Your task to perform on an android device: star an email in the gmail app Image 0: 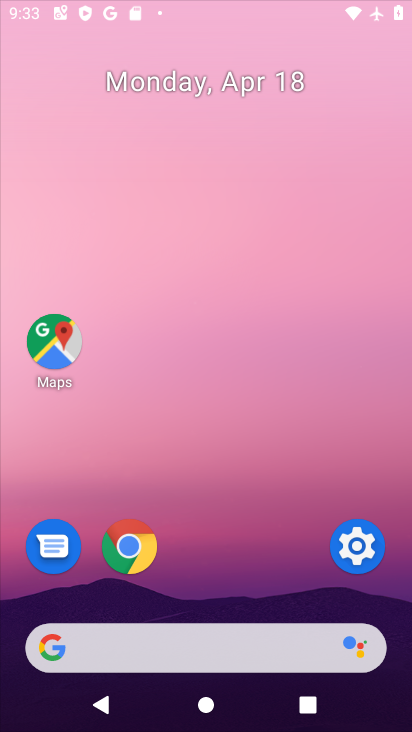
Step 0: click (359, 550)
Your task to perform on an android device: star an email in the gmail app Image 1: 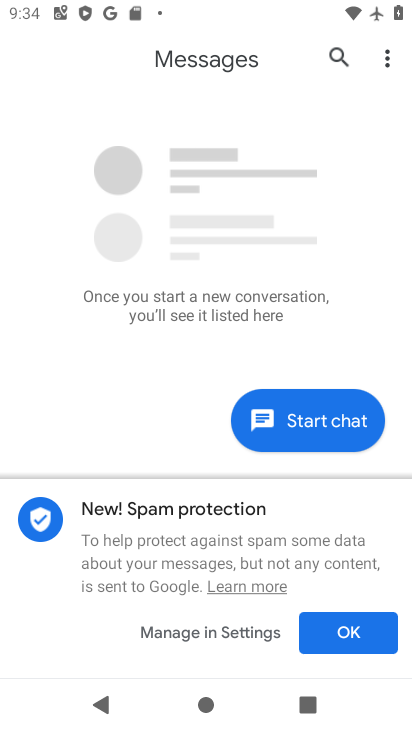
Step 1: press home button
Your task to perform on an android device: star an email in the gmail app Image 2: 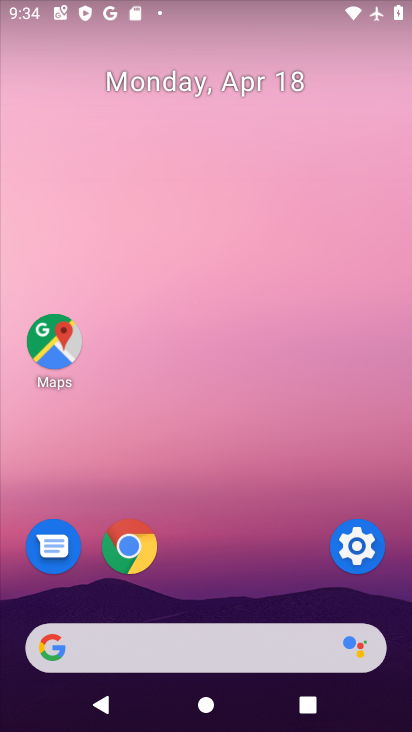
Step 2: drag from (269, 522) to (243, 91)
Your task to perform on an android device: star an email in the gmail app Image 3: 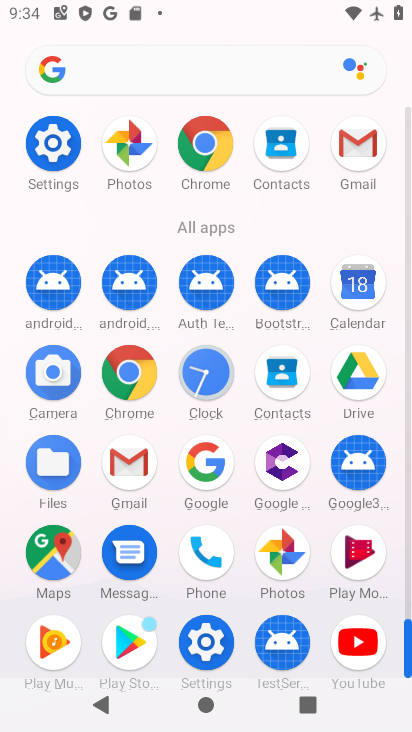
Step 3: click (351, 147)
Your task to perform on an android device: star an email in the gmail app Image 4: 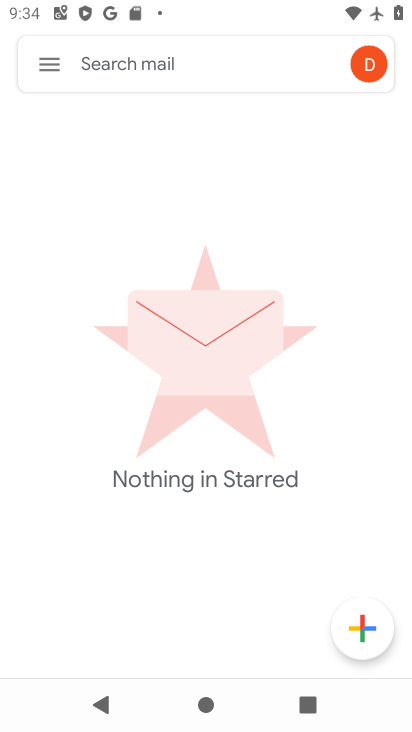
Step 4: click (48, 68)
Your task to perform on an android device: star an email in the gmail app Image 5: 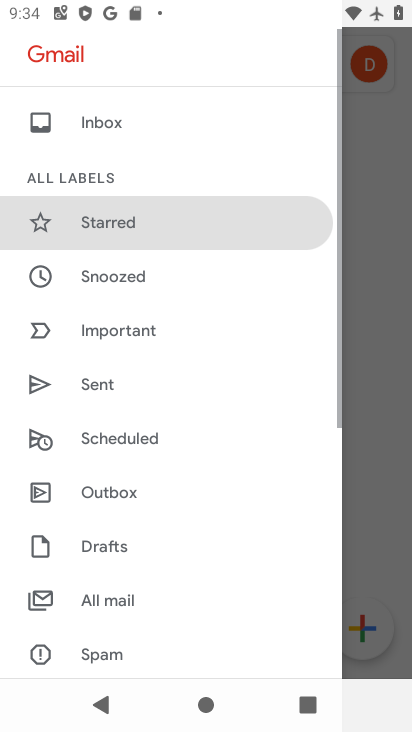
Step 5: click (84, 127)
Your task to perform on an android device: star an email in the gmail app Image 6: 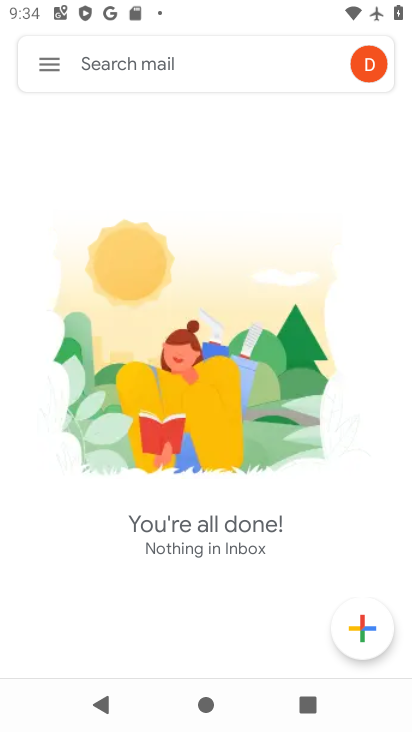
Step 6: task complete